Your task to perform on an android device: turn off location history Image 0: 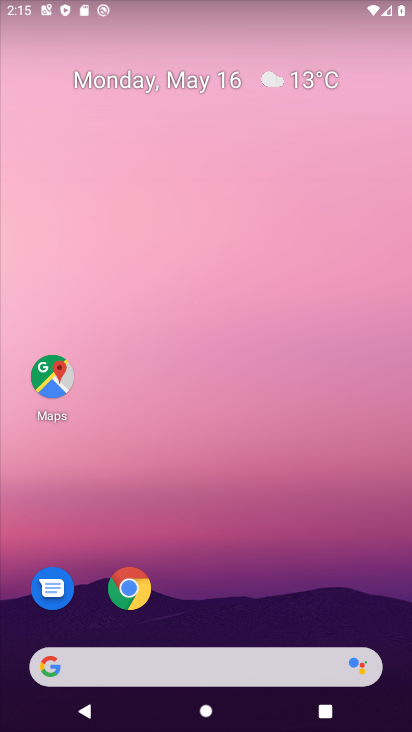
Step 0: drag from (155, 632) to (175, 5)
Your task to perform on an android device: turn off location history Image 1: 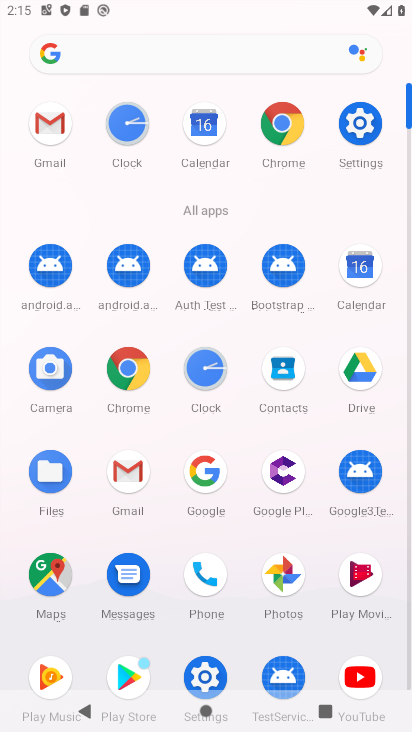
Step 1: click (375, 125)
Your task to perform on an android device: turn off location history Image 2: 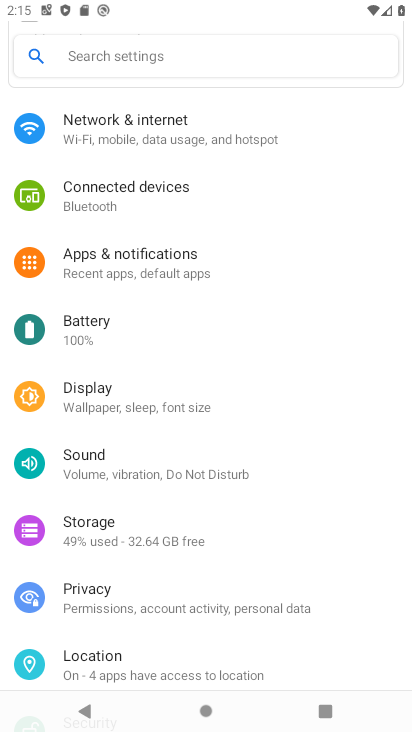
Step 2: click (119, 666)
Your task to perform on an android device: turn off location history Image 3: 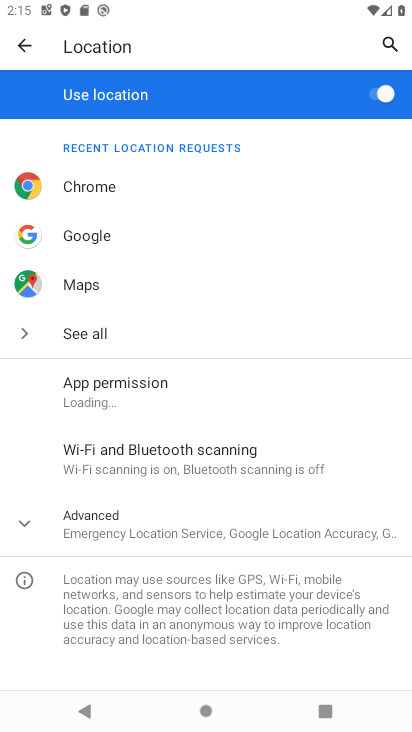
Step 3: click (152, 529)
Your task to perform on an android device: turn off location history Image 4: 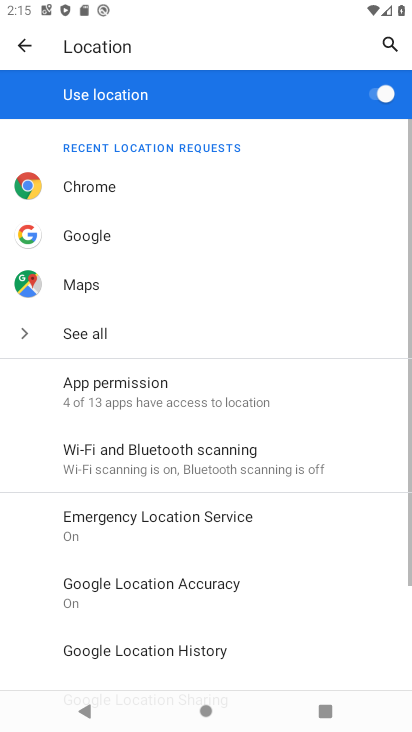
Step 4: drag from (182, 575) to (207, 108)
Your task to perform on an android device: turn off location history Image 5: 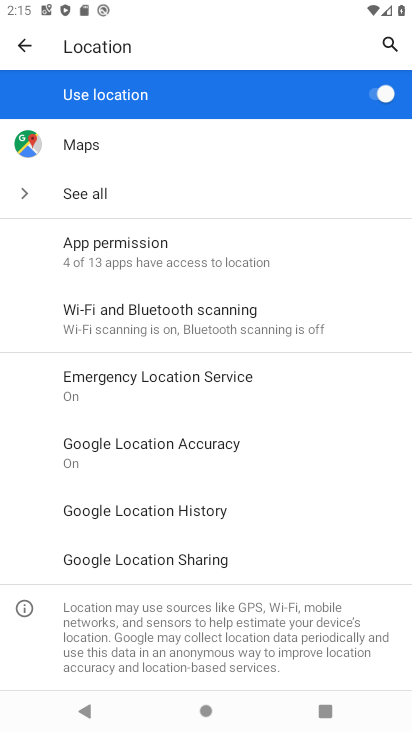
Step 5: click (177, 566)
Your task to perform on an android device: turn off location history Image 6: 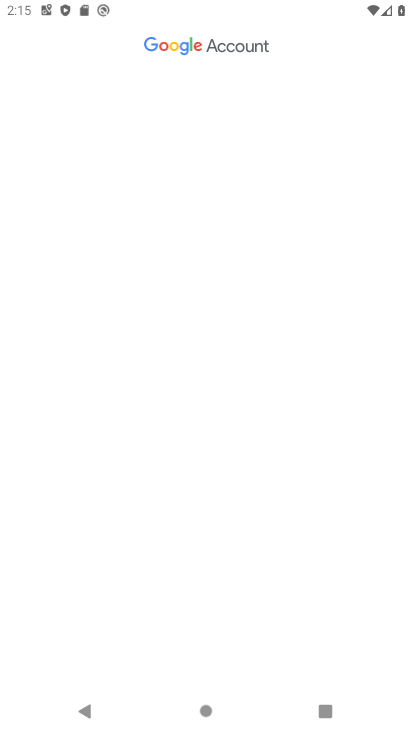
Step 6: press back button
Your task to perform on an android device: turn off location history Image 7: 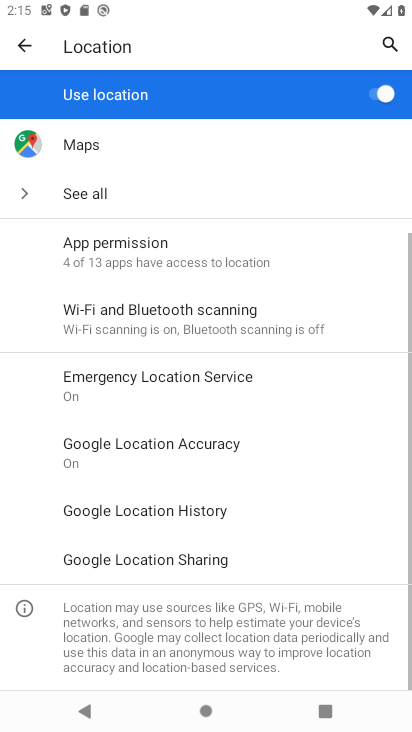
Step 7: click (205, 504)
Your task to perform on an android device: turn off location history Image 8: 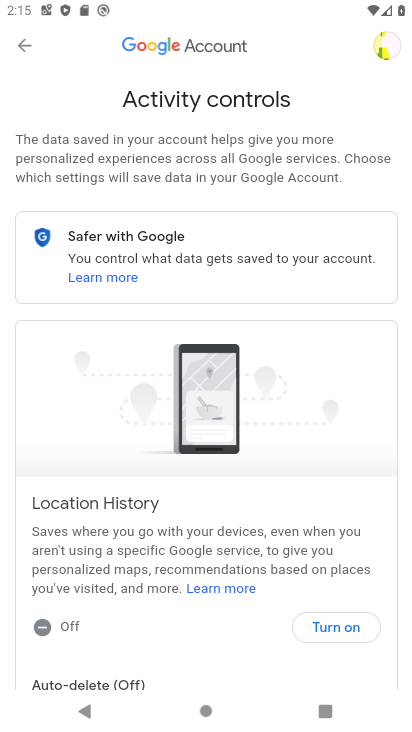
Step 8: task complete